Your task to perform on an android device: install app "Microsoft Outlook" Image 0: 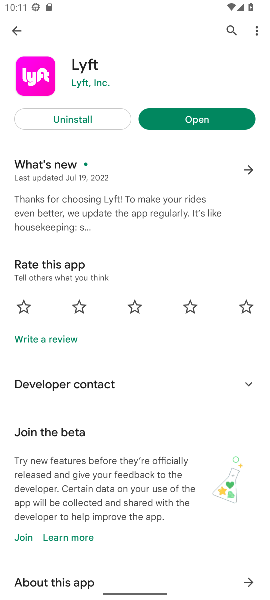
Step 0: click (230, 26)
Your task to perform on an android device: install app "Microsoft Outlook" Image 1: 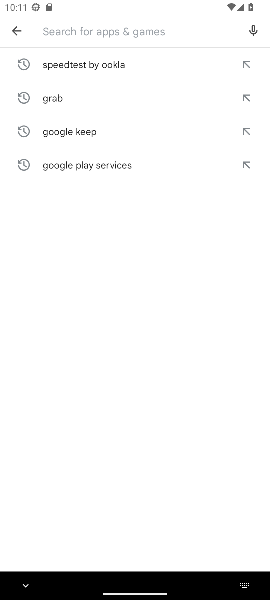
Step 1: type "Microsoft Outlook"
Your task to perform on an android device: install app "Microsoft Outlook" Image 2: 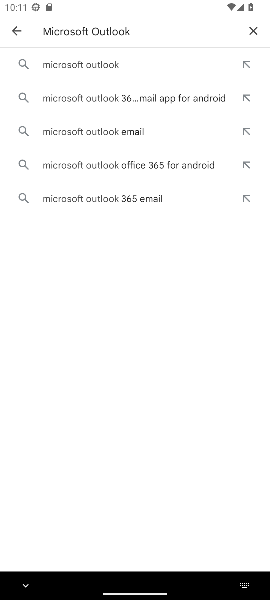
Step 2: click (88, 67)
Your task to perform on an android device: install app "Microsoft Outlook" Image 3: 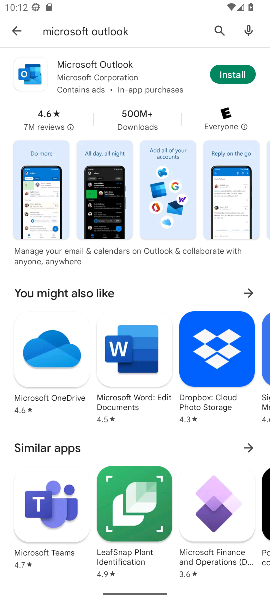
Step 3: click (232, 74)
Your task to perform on an android device: install app "Microsoft Outlook" Image 4: 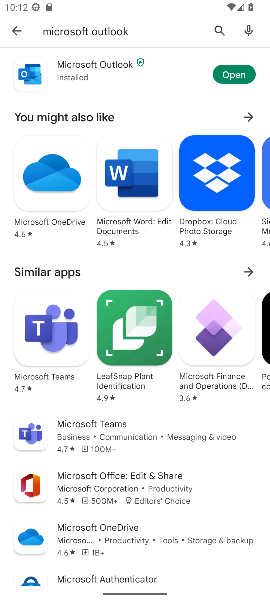
Step 4: task complete